Your task to perform on an android device: Open settings Image 0: 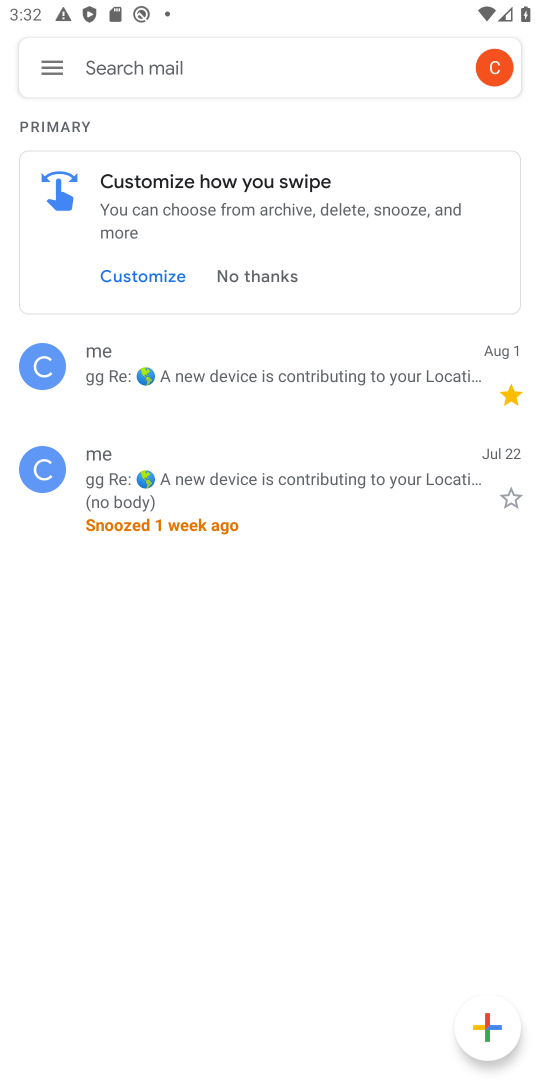
Step 0: press back button
Your task to perform on an android device: Open settings Image 1: 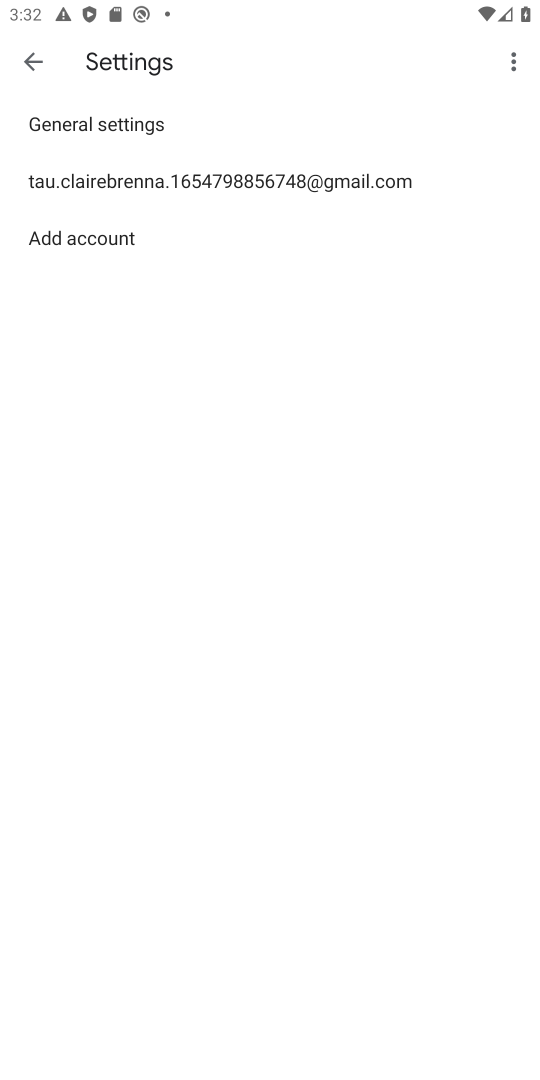
Step 1: press home button
Your task to perform on an android device: Open settings Image 2: 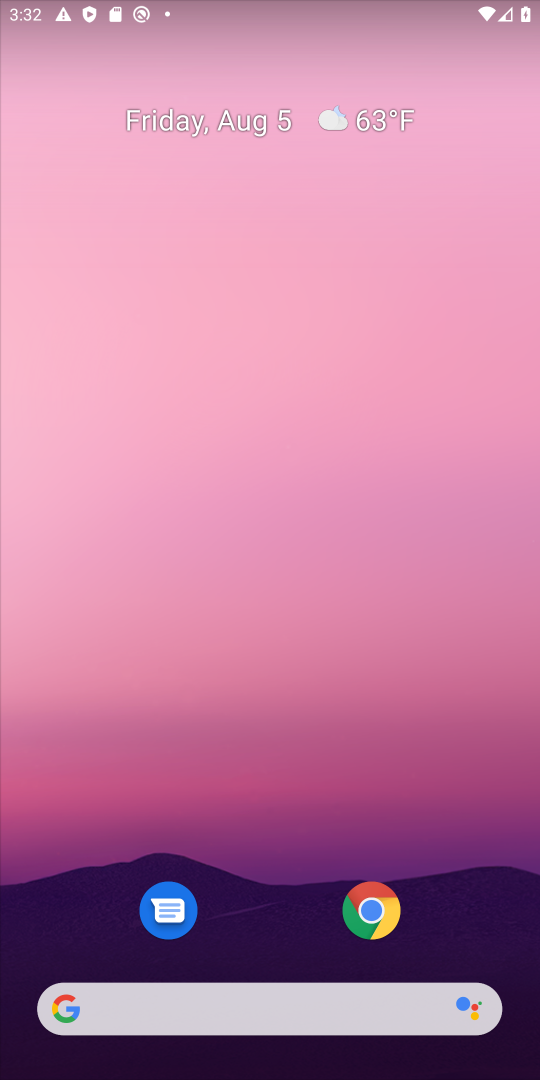
Step 2: drag from (296, 912) to (289, 277)
Your task to perform on an android device: Open settings Image 3: 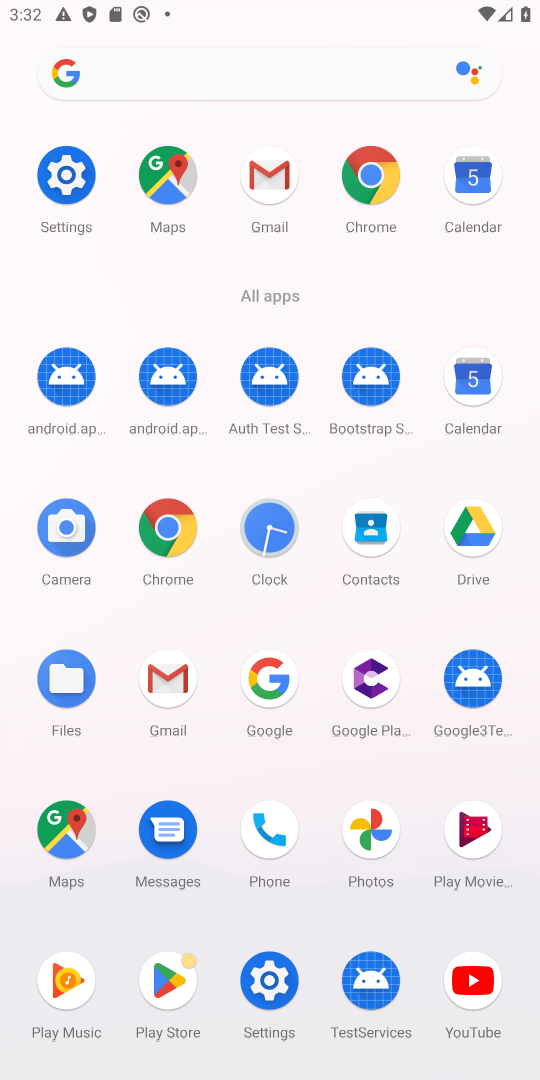
Step 3: click (83, 185)
Your task to perform on an android device: Open settings Image 4: 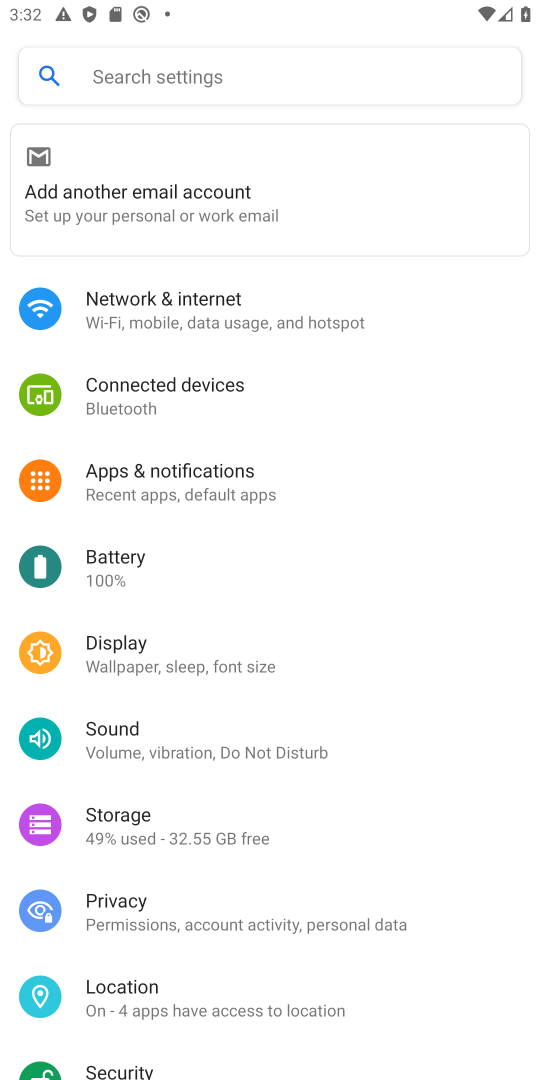
Step 4: task complete